Your task to perform on an android device: turn on data saver in the chrome app Image 0: 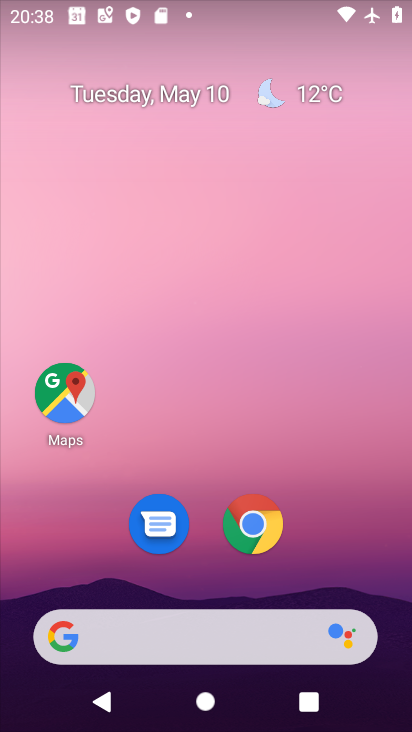
Step 0: click (260, 532)
Your task to perform on an android device: turn on data saver in the chrome app Image 1: 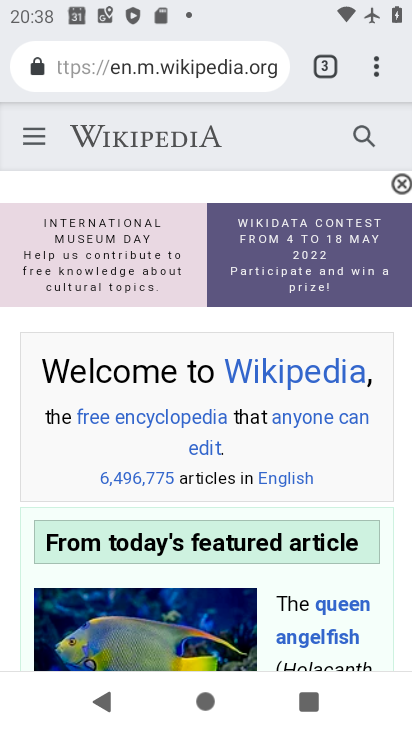
Step 1: click (370, 59)
Your task to perform on an android device: turn on data saver in the chrome app Image 2: 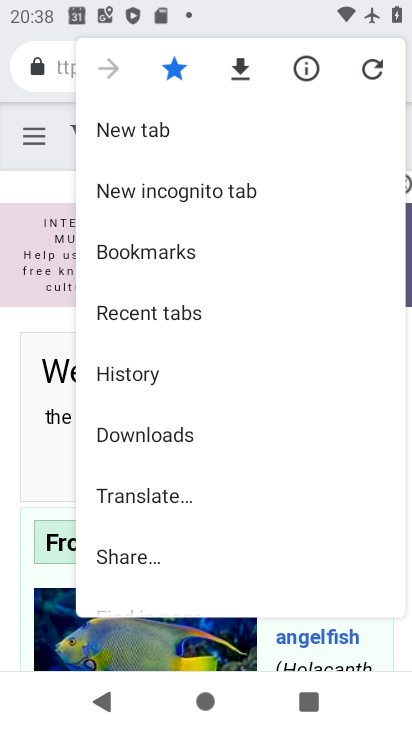
Step 2: drag from (272, 488) to (248, 128)
Your task to perform on an android device: turn on data saver in the chrome app Image 3: 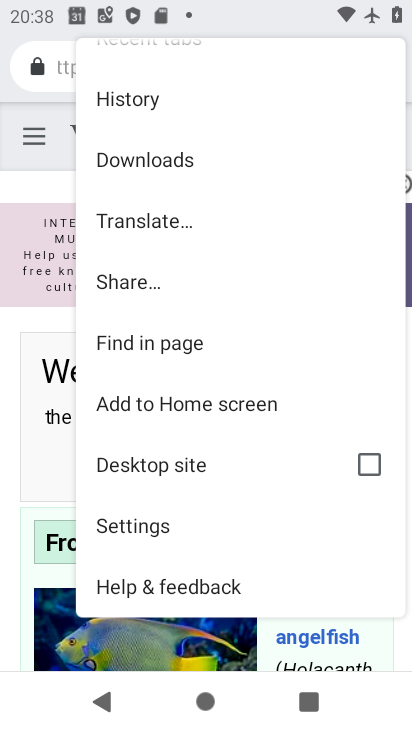
Step 3: click (204, 526)
Your task to perform on an android device: turn on data saver in the chrome app Image 4: 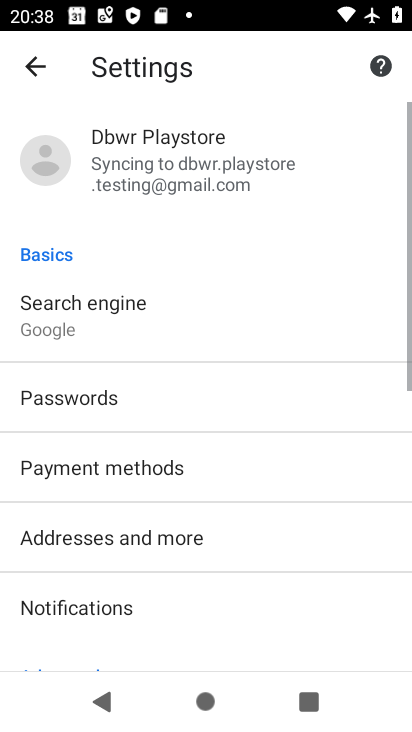
Step 4: drag from (249, 604) to (240, 84)
Your task to perform on an android device: turn on data saver in the chrome app Image 5: 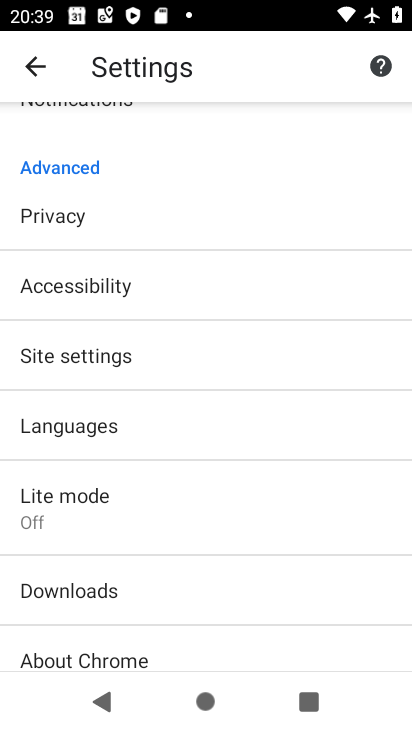
Step 5: click (184, 520)
Your task to perform on an android device: turn on data saver in the chrome app Image 6: 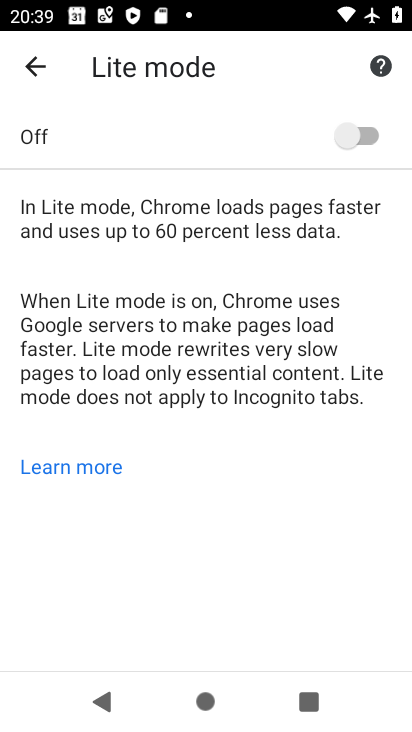
Step 6: click (357, 132)
Your task to perform on an android device: turn on data saver in the chrome app Image 7: 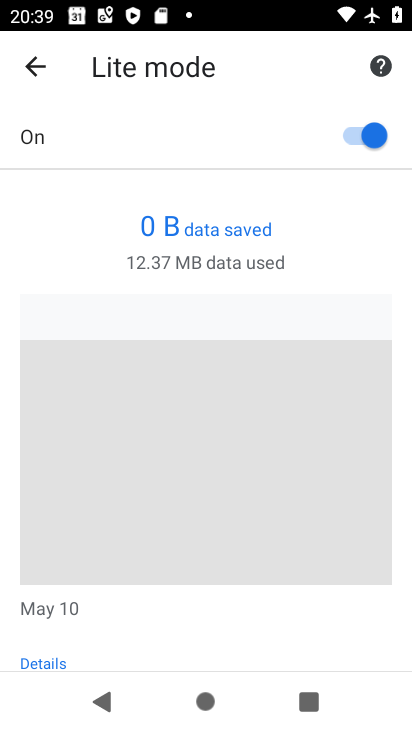
Step 7: task complete